Your task to perform on an android device: change notifications settings Image 0: 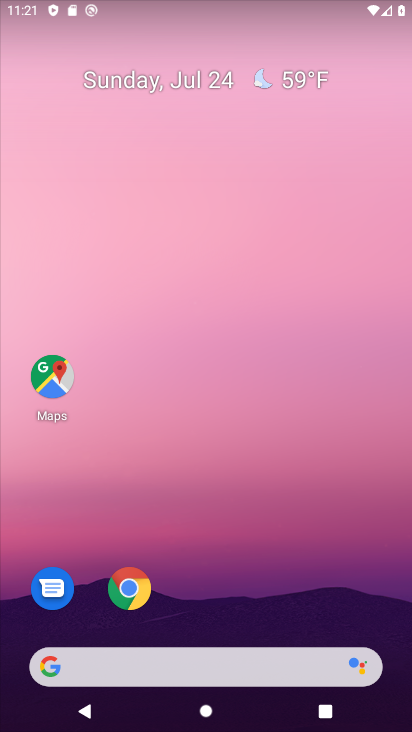
Step 0: drag from (327, 617) to (149, 39)
Your task to perform on an android device: change notifications settings Image 1: 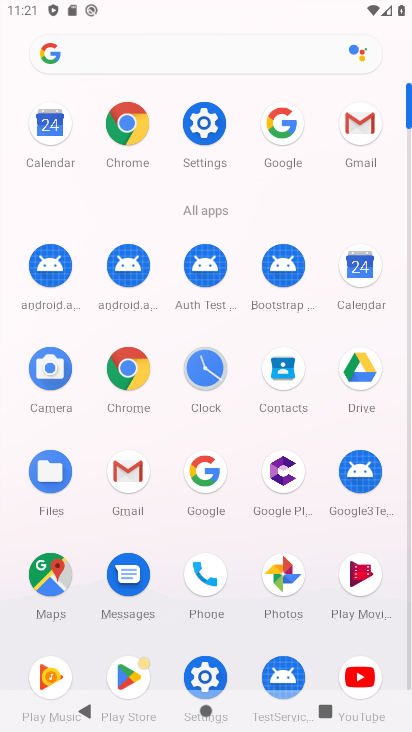
Step 1: click (201, 663)
Your task to perform on an android device: change notifications settings Image 2: 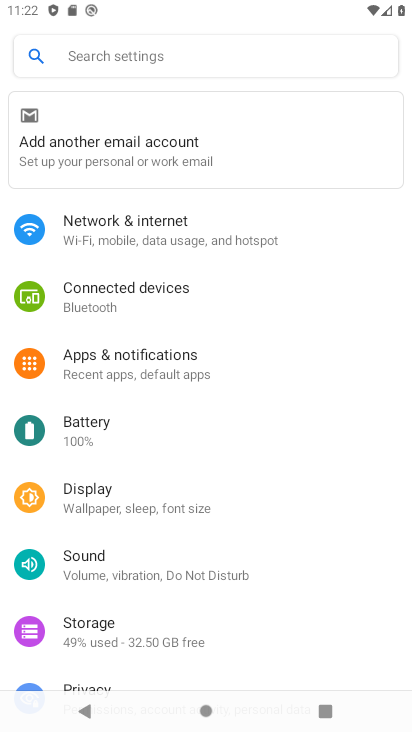
Step 2: click (136, 364)
Your task to perform on an android device: change notifications settings Image 3: 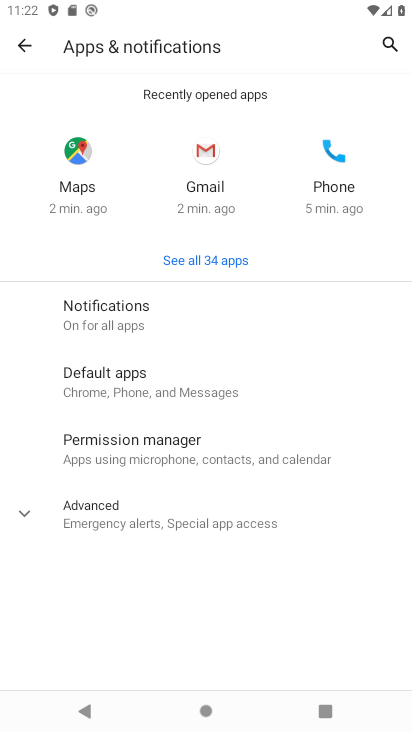
Step 3: task complete